Your task to perform on an android device: open app "Booking.com: Hotels and more" (install if not already installed) and go to login screen Image 0: 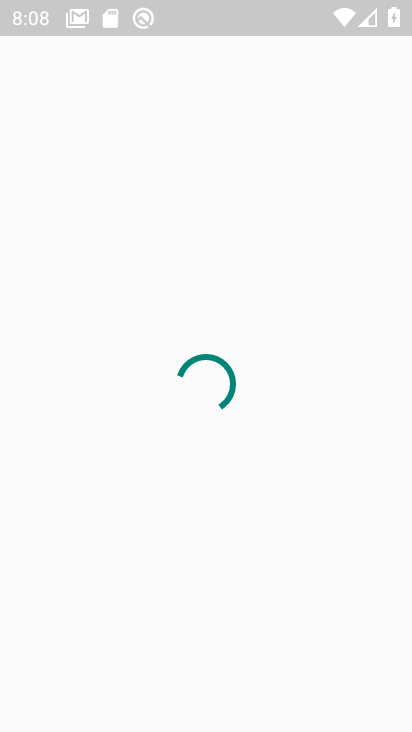
Step 0: press home button
Your task to perform on an android device: open app "Booking.com: Hotels and more" (install if not already installed) and go to login screen Image 1: 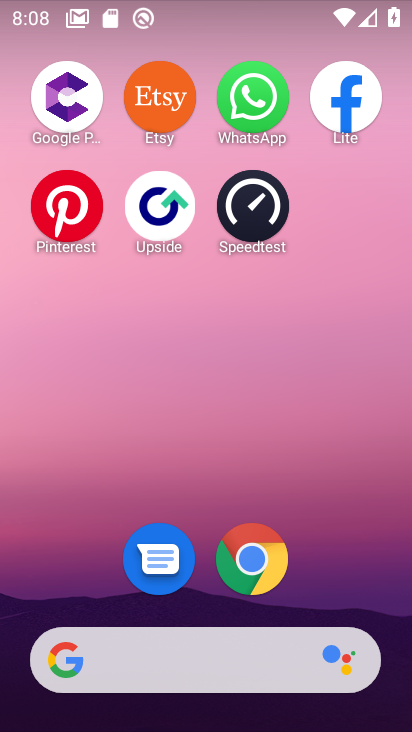
Step 1: drag from (178, 478) to (237, 85)
Your task to perform on an android device: open app "Booking.com: Hotels and more" (install if not already installed) and go to login screen Image 2: 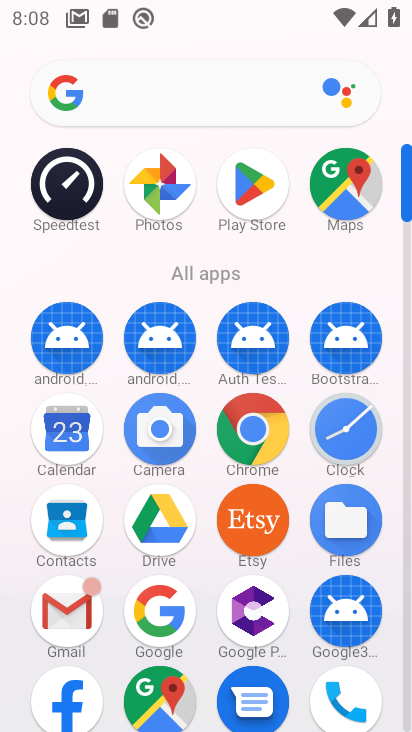
Step 2: click (267, 170)
Your task to perform on an android device: open app "Booking.com: Hotels and more" (install if not already installed) and go to login screen Image 3: 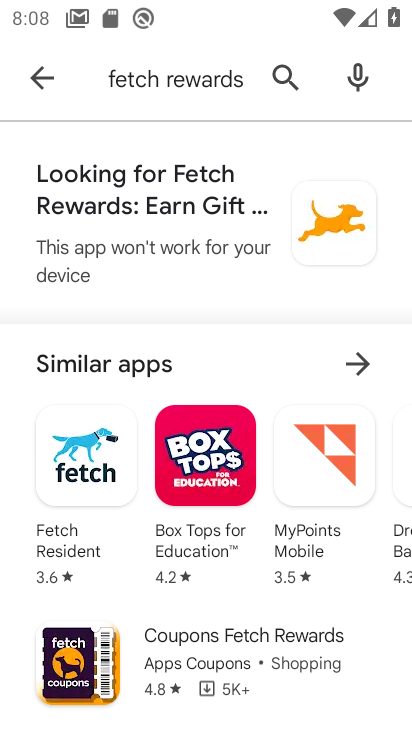
Step 3: click (292, 68)
Your task to perform on an android device: open app "Booking.com: Hotels and more" (install if not already installed) and go to login screen Image 4: 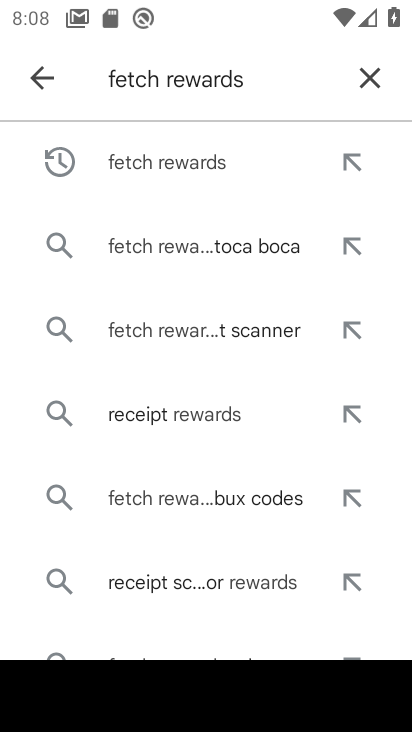
Step 4: click (358, 71)
Your task to perform on an android device: open app "Booking.com: Hotels and more" (install if not already installed) and go to login screen Image 5: 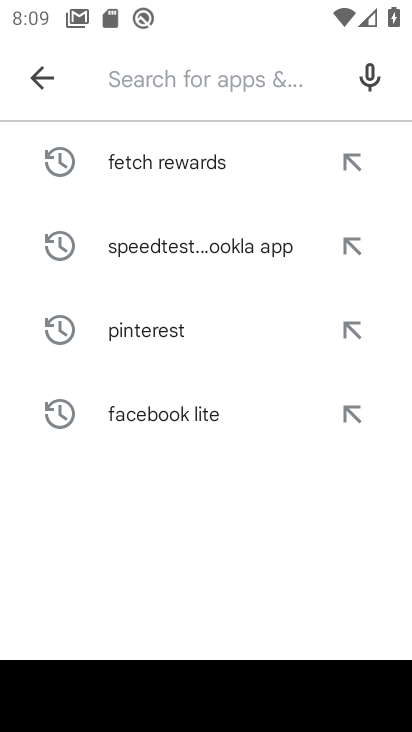
Step 5: type "Booking.com: Hotels and more"
Your task to perform on an android device: open app "Booking.com: Hotels and more" (install if not already installed) and go to login screen Image 6: 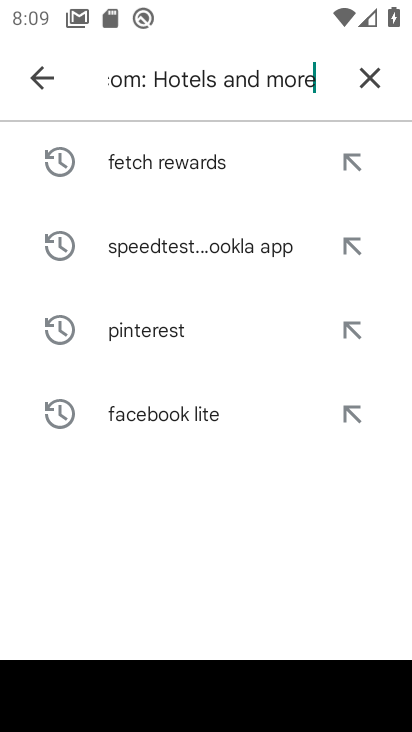
Step 6: type ""
Your task to perform on an android device: open app "Booking.com: Hotels and more" (install if not already installed) and go to login screen Image 7: 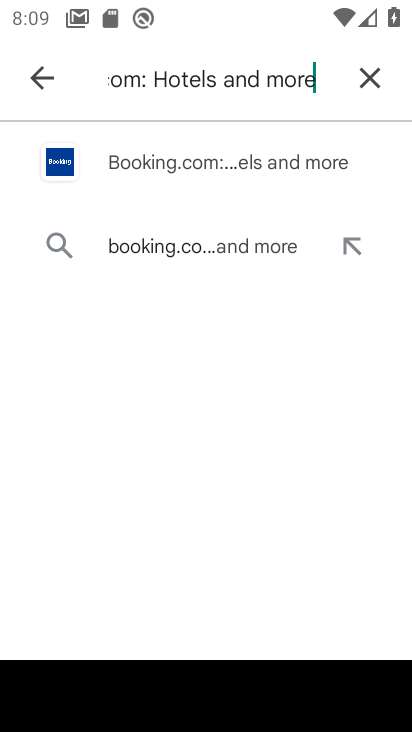
Step 7: click (203, 176)
Your task to perform on an android device: open app "Booking.com: Hotels and more" (install if not already installed) and go to login screen Image 8: 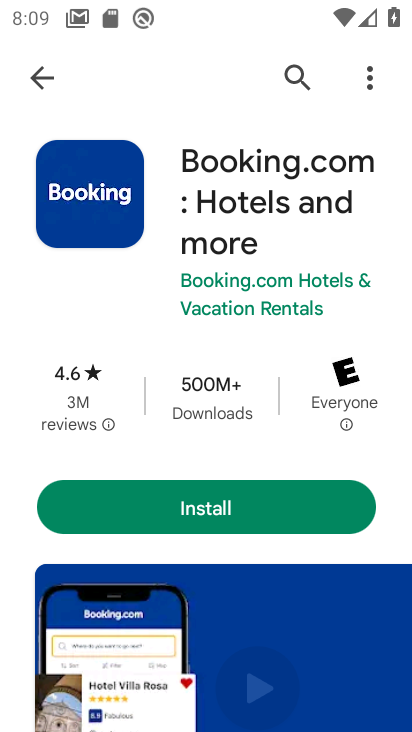
Step 8: click (188, 500)
Your task to perform on an android device: open app "Booking.com: Hotels and more" (install if not already installed) and go to login screen Image 9: 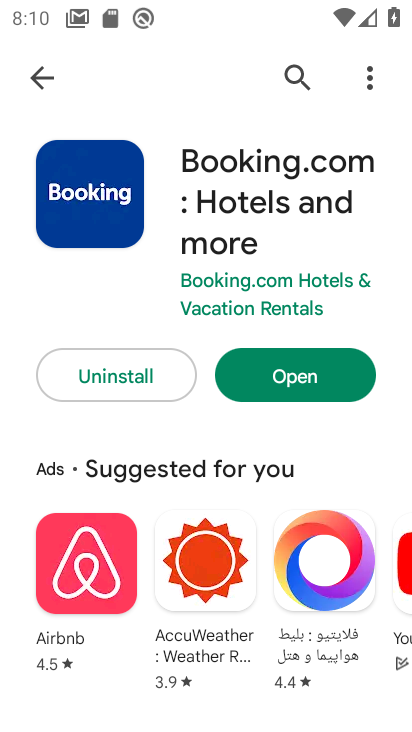
Step 9: click (265, 379)
Your task to perform on an android device: open app "Booking.com: Hotels and more" (install if not already installed) and go to login screen Image 10: 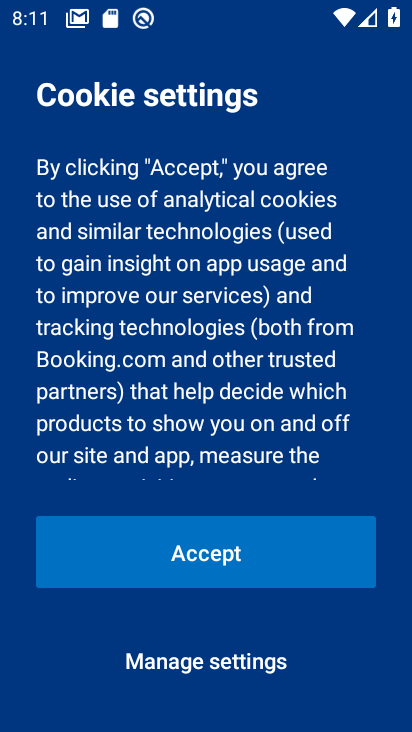
Step 10: task complete